Your task to perform on an android device: Open internet settings Image 0: 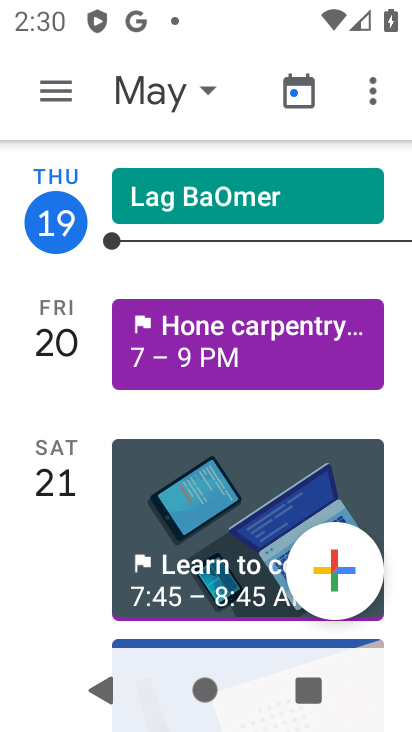
Step 0: press home button
Your task to perform on an android device: Open internet settings Image 1: 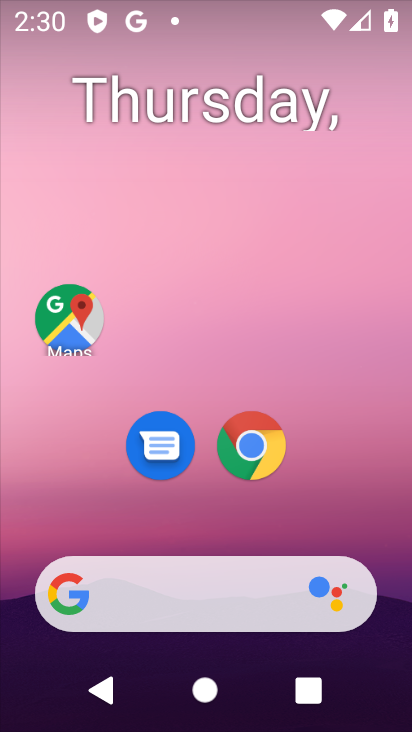
Step 1: drag from (218, 533) to (266, 16)
Your task to perform on an android device: Open internet settings Image 2: 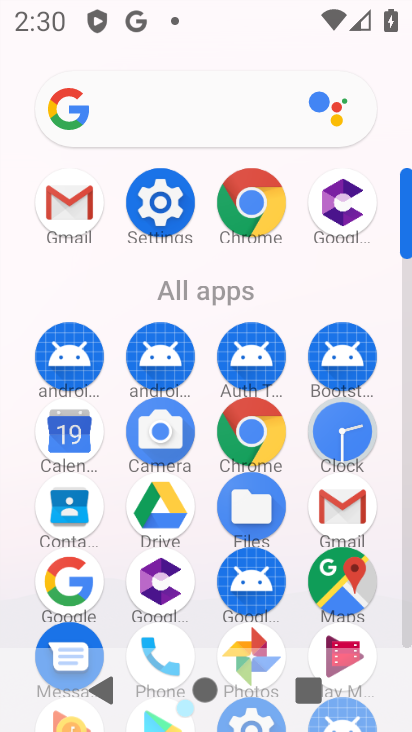
Step 2: click (158, 216)
Your task to perform on an android device: Open internet settings Image 3: 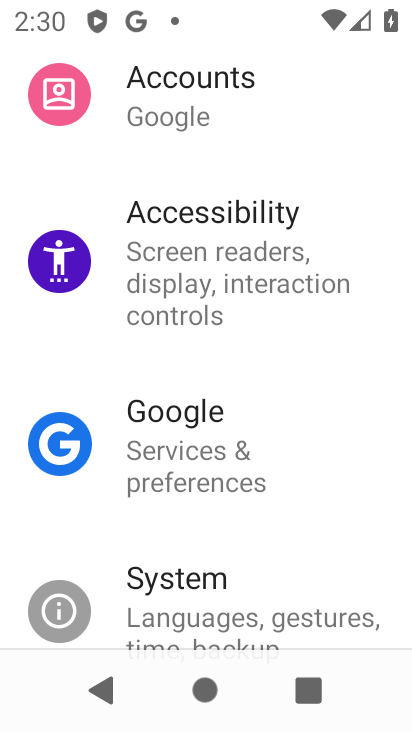
Step 3: drag from (206, 178) to (227, 562)
Your task to perform on an android device: Open internet settings Image 4: 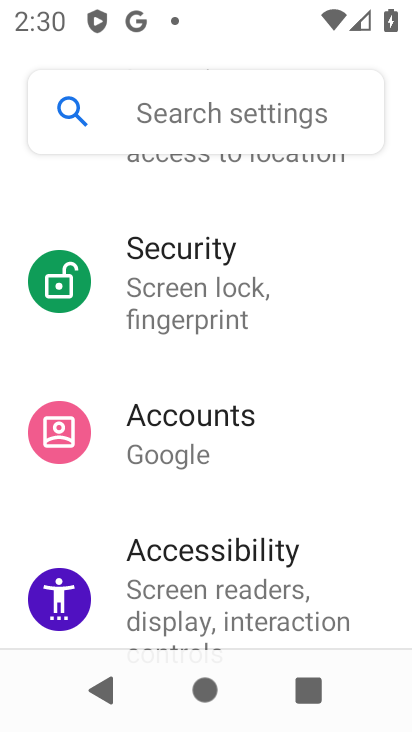
Step 4: drag from (235, 203) to (236, 554)
Your task to perform on an android device: Open internet settings Image 5: 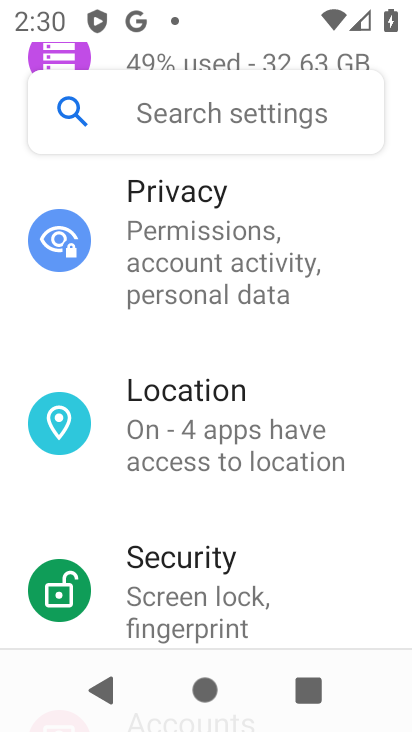
Step 5: drag from (201, 334) to (208, 594)
Your task to perform on an android device: Open internet settings Image 6: 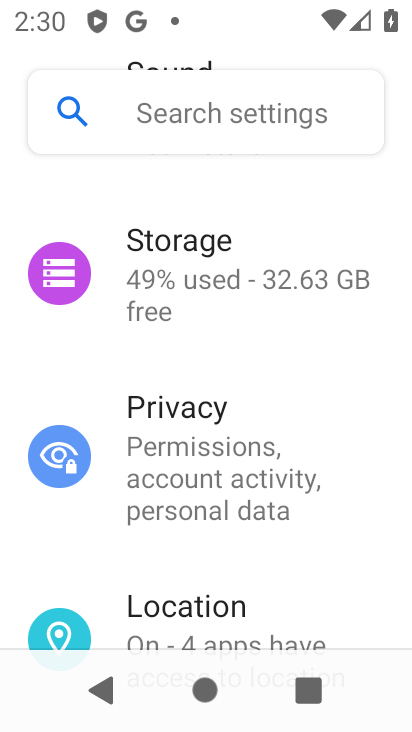
Step 6: drag from (223, 240) to (222, 592)
Your task to perform on an android device: Open internet settings Image 7: 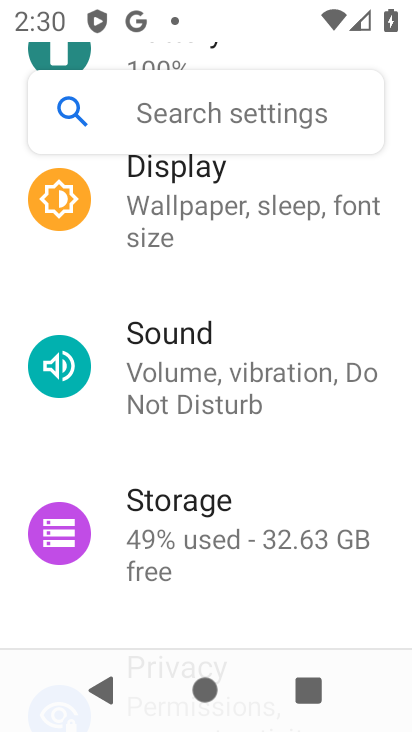
Step 7: drag from (216, 318) to (248, 667)
Your task to perform on an android device: Open internet settings Image 8: 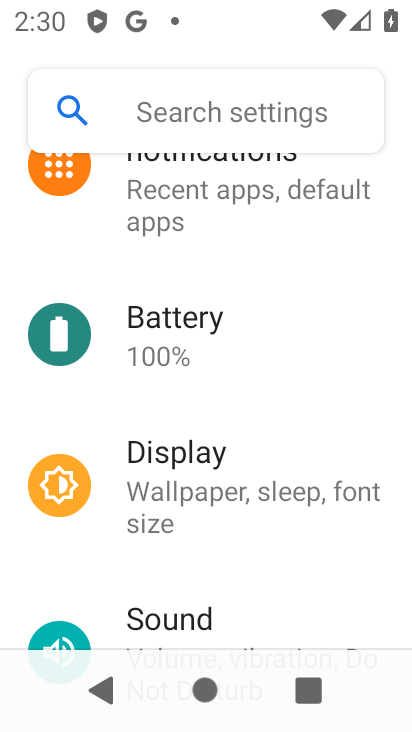
Step 8: drag from (198, 258) to (218, 537)
Your task to perform on an android device: Open internet settings Image 9: 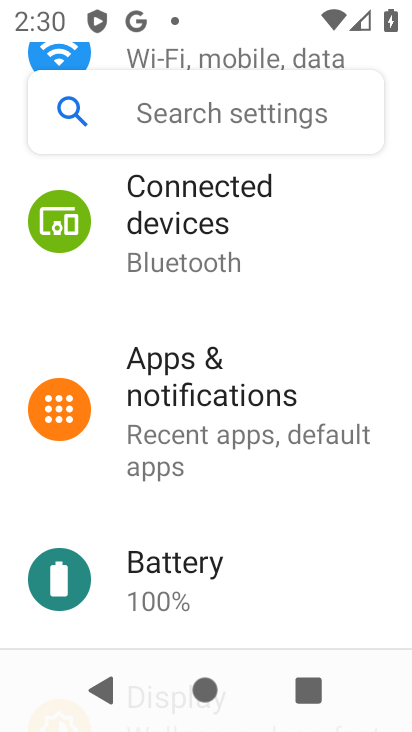
Step 9: drag from (197, 205) to (218, 540)
Your task to perform on an android device: Open internet settings Image 10: 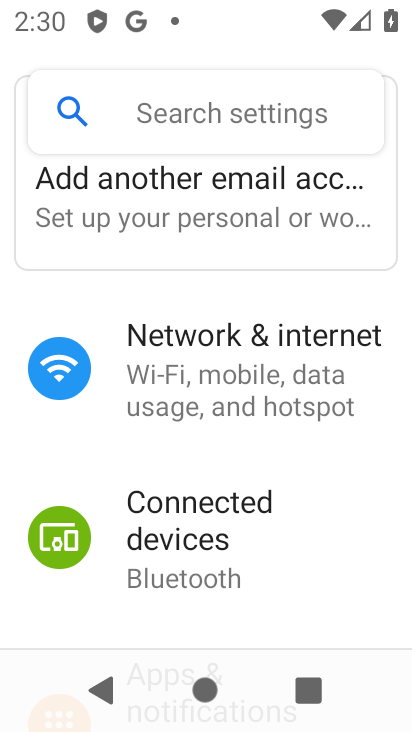
Step 10: click (214, 393)
Your task to perform on an android device: Open internet settings Image 11: 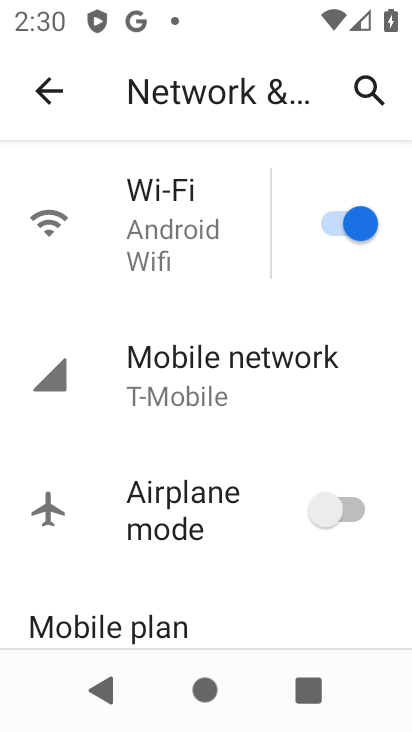
Step 11: task complete